Your task to perform on an android device: Search for Mexican restaurants on Maps Image 0: 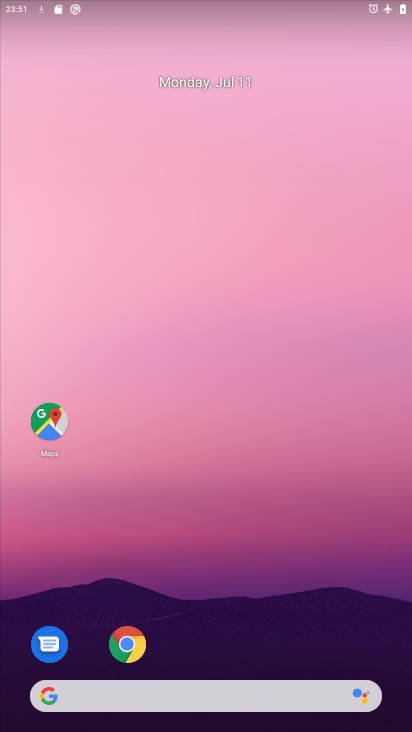
Step 0: drag from (180, 647) to (187, 289)
Your task to perform on an android device: Search for Mexican restaurants on Maps Image 1: 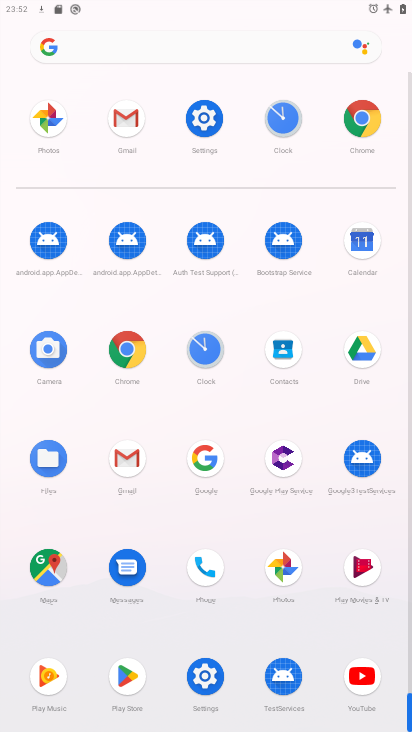
Step 1: click (42, 561)
Your task to perform on an android device: Search for Mexican restaurants on Maps Image 2: 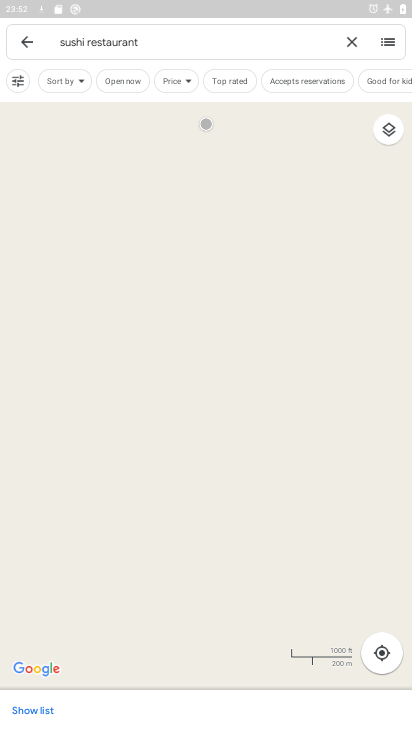
Step 2: click (348, 32)
Your task to perform on an android device: Search for Mexican restaurants on Maps Image 3: 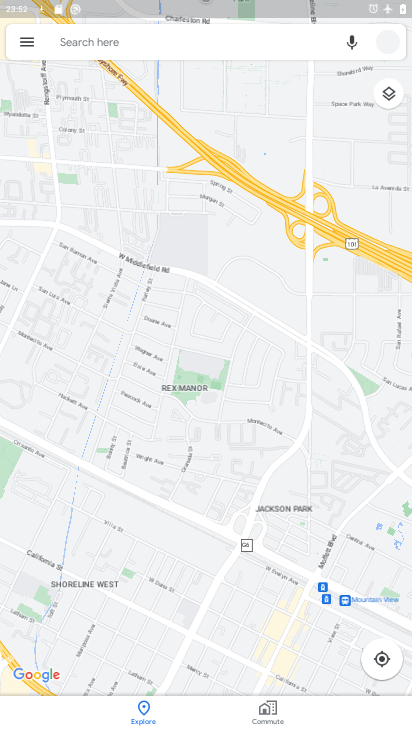
Step 3: click (186, 29)
Your task to perform on an android device: Search for Mexican restaurants on Maps Image 4: 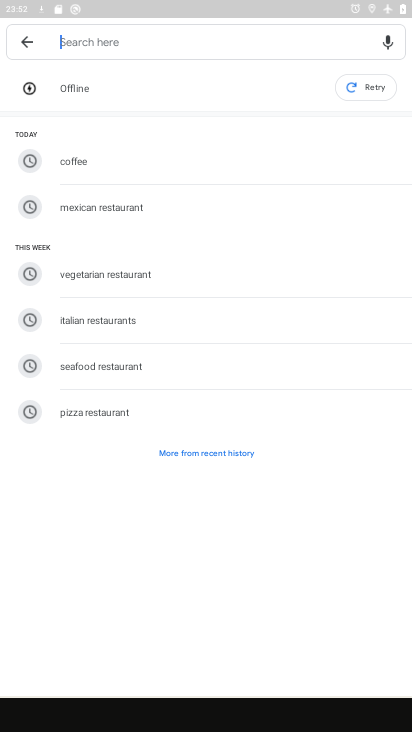
Step 4: type " Mexican restaurants "
Your task to perform on an android device: Search for Mexican restaurants on Maps Image 5: 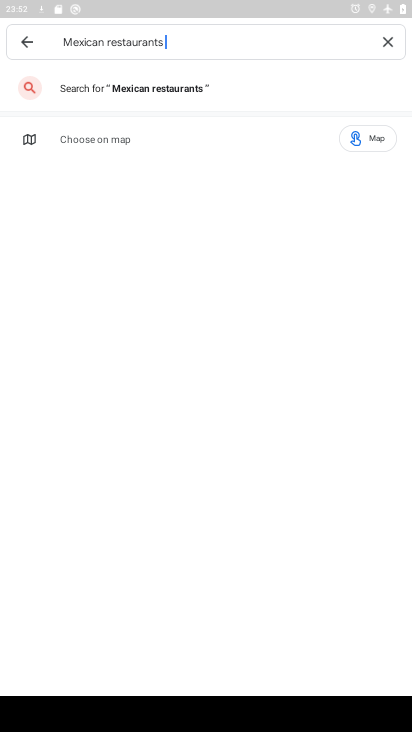
Step 5: click (150, 94)
Your task to perform on an android device: Search for Mexican restaurants on Maps Image 6: 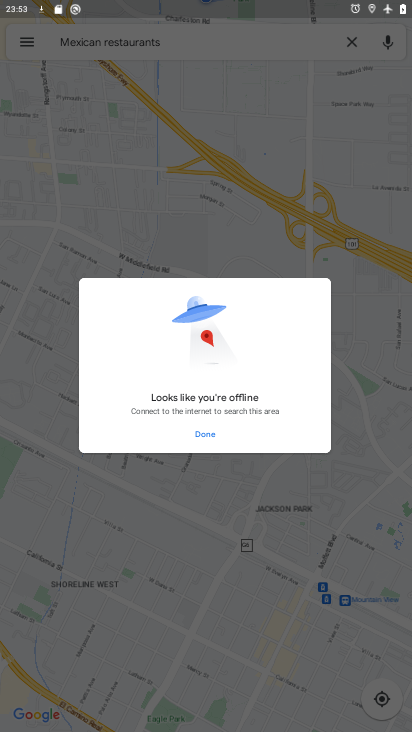
Step 6: click (150, 94)
Your task to perform on an android device: Search for Mexican restaurants on Maps Image 7: 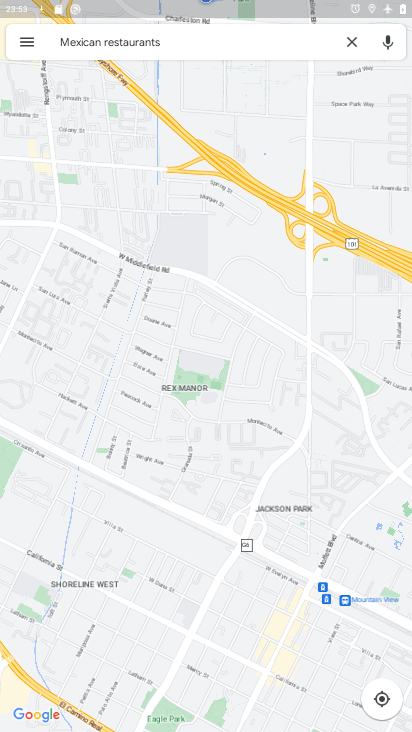
Step 7: click (225, 31)
Your task to perform on an android device: Search for Mexican restaurants on Maps Image 8: 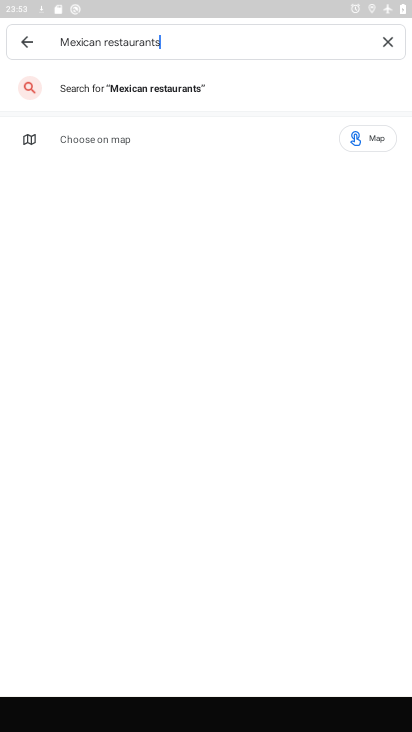
Step 8: task complete